Your task to perform on an android device: check storage Image 0: 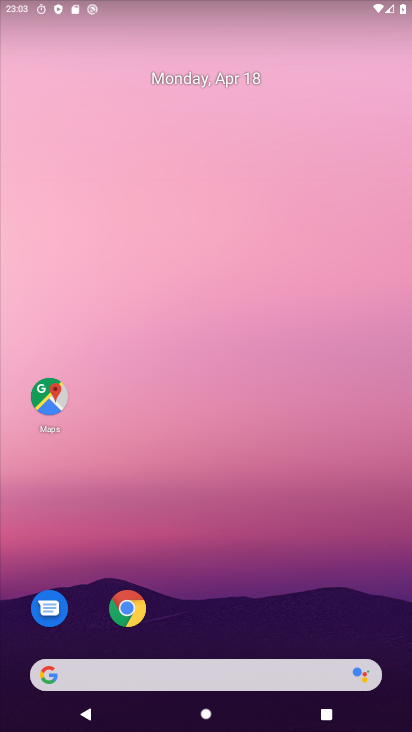
Step 0: drag from (238, 598) to (242, 160)
Your task to perform on an android device: check storage Image 1: 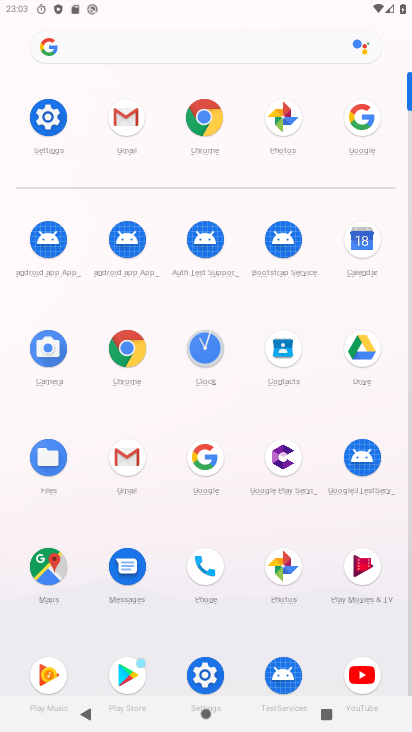
Step 1: click (47, 118)
Your task to perform on an android device: check storage Image 2: 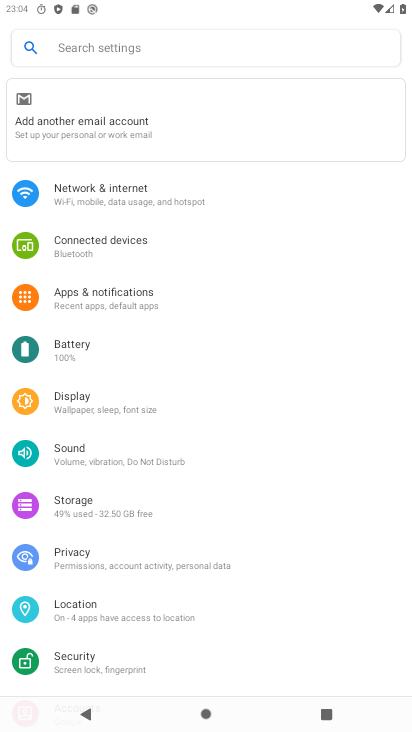
Step 2: click (101, 499)
Your task to perform on an android device: check storage Image 3: 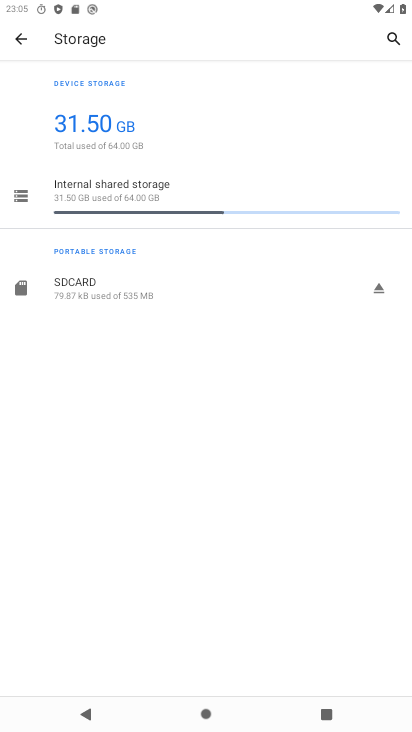
Step 3: task complete